Your task to perform on an android device: Go to eBay Image 0: 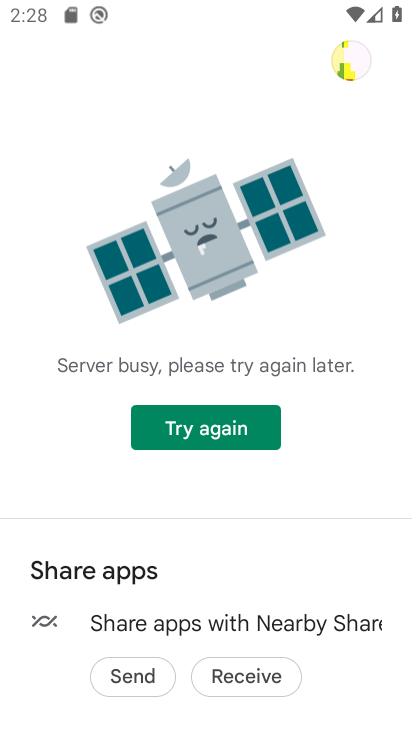
Step 0: press home button
Your task to perform on an android device: Go to eBay Image 1: 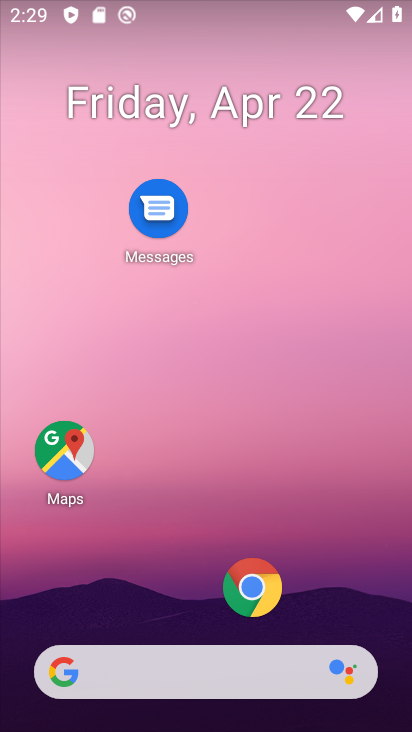
Step 1: click (201, 669)
Your task to perform on an android device: Go to eBay Image 2: 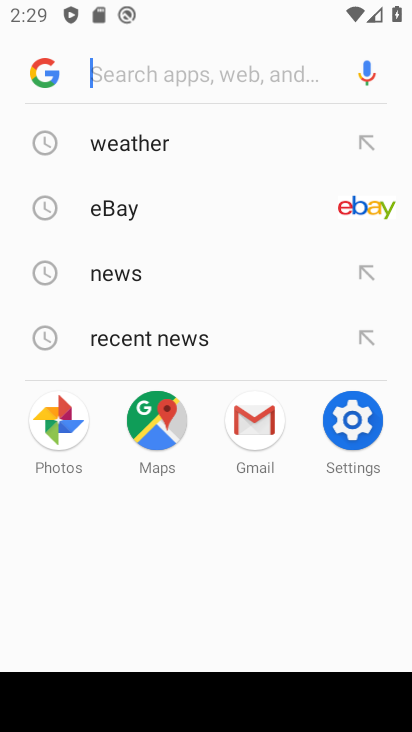
Step 2: click (144, 206)
Your task to perform on an android device: Go to eBay Image 3: 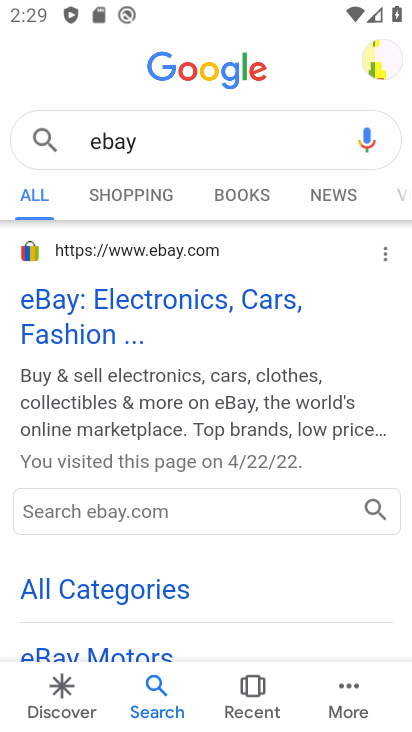
Step 3: click (103, 310)
Your task to perform on an android device: Go to eBay Image 4: 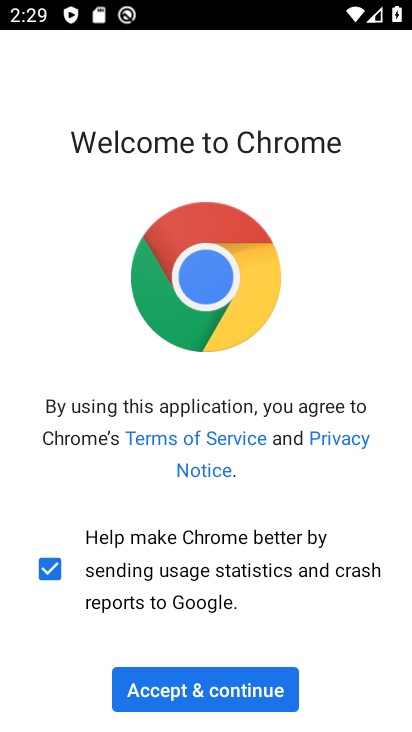
Step 4: click (249, 681)
Your task to perform on an android device: Go to eBay Image 5: 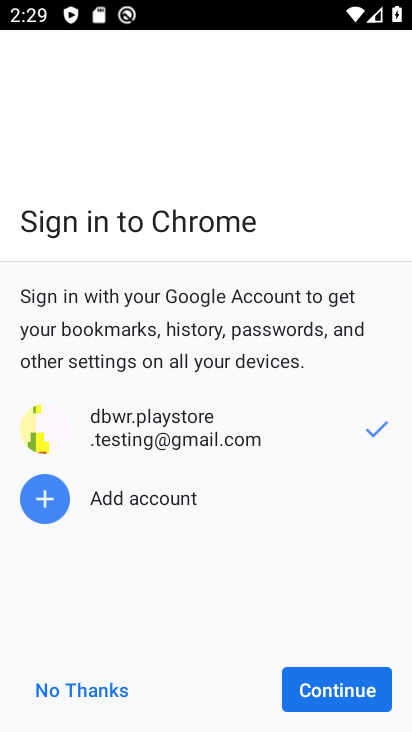
Step 5: click (327, 675)
Your task to perform on an android device: Go to eBay Image 6: 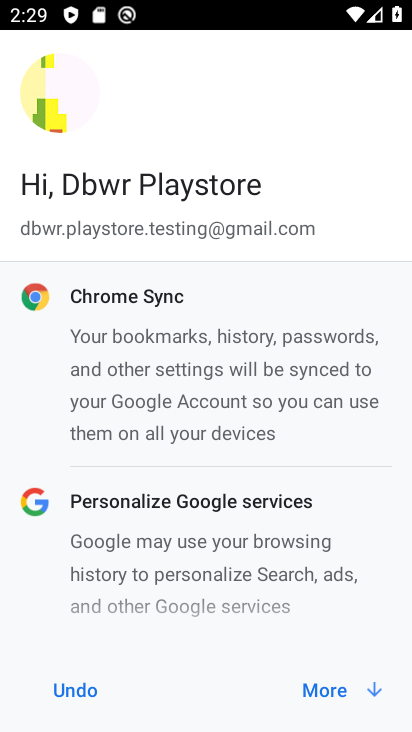
Step 6: click (321, 692)
Your task to perform on an android device: Go to eBay Image 7: 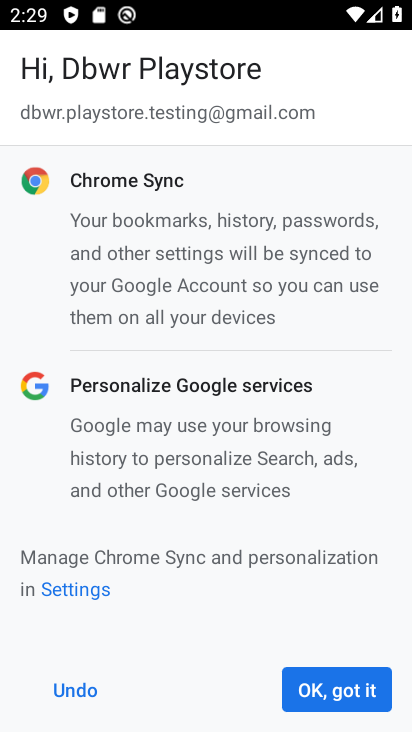
Step 7: click (322, 690)
Your task to perform on an android device: Go to eBay Image 8: 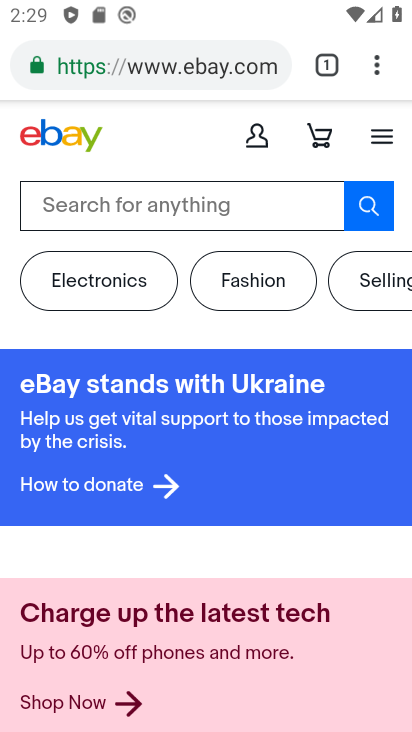
Step 8: task complete